Your task to perform on an android device: What is the news today? Image 0: 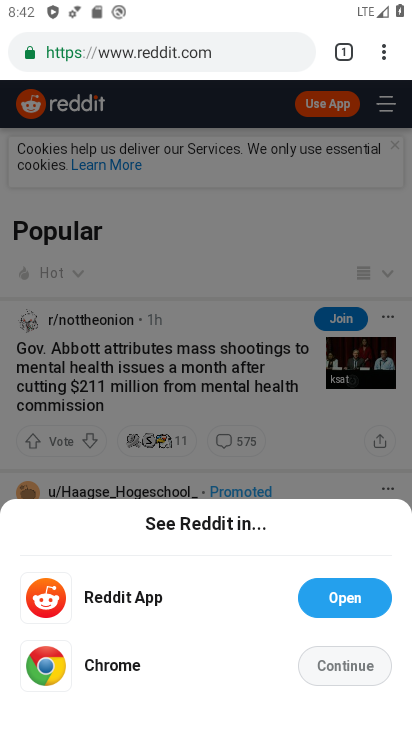
Step 0: drag from (148, 731) to (351, 258)
Your task to perform on an android device: What is the news today? Image 1: 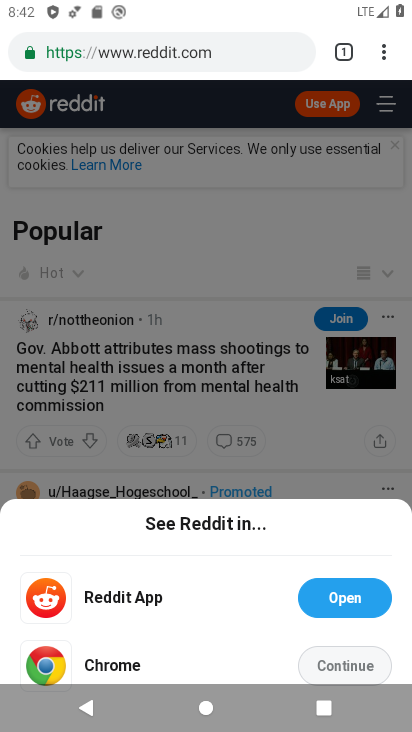
Step 1: press home button
Your task to perform on an android device: What is the news today? Image 2: 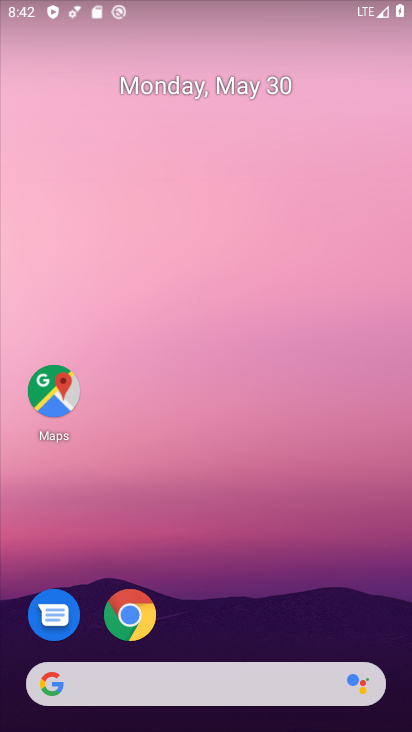
Step 2: click (133, 696)
Your task to perform on an android device: What is the news today? Image 3: 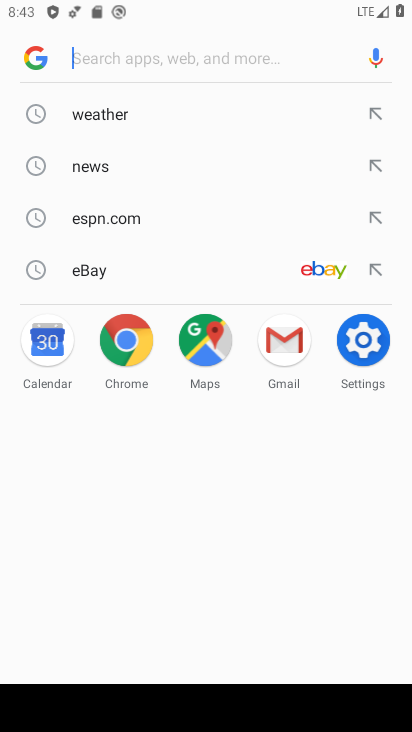
Step 3: click (91, 174)
Your task to perform on an android device: What is the news today? Image 4: 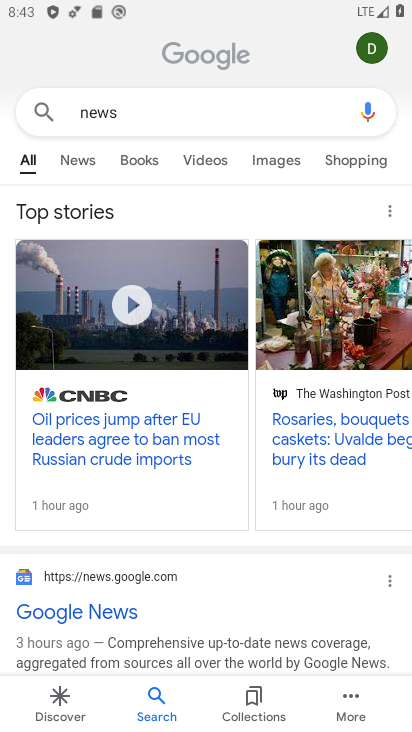
Step 4: task complete